Your task to perform on an android device: turn on notifications settings in the gmail app Image 0: 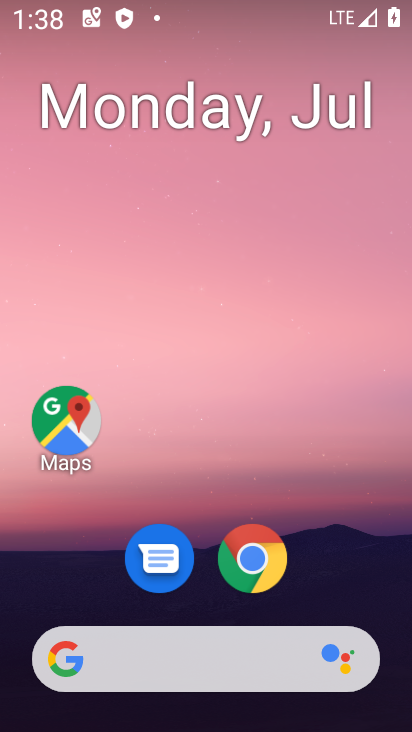
Step 0: drag from (351, 571) to (383, 54)
Your task to perform on an android device: turn on notifications settings in the gmail app Image 1: 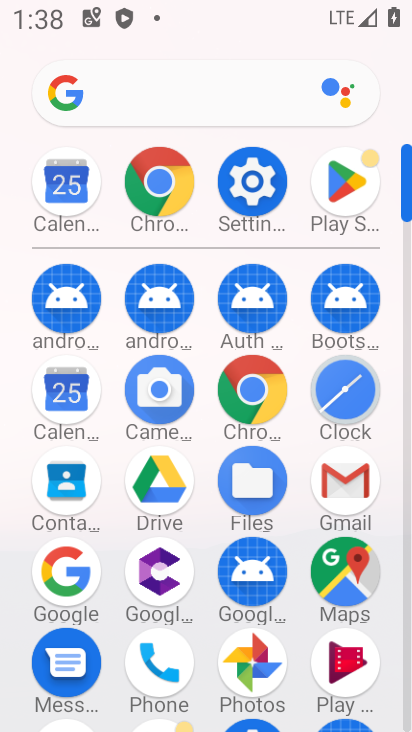
Step 1: click (356, 484)
Your task to perform on an android device: turn on notifications settings in the gmail app Image 2: 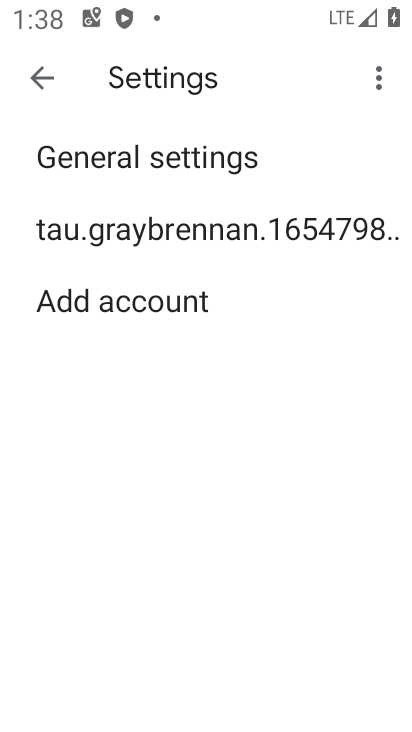
Step 2: click (244, 230)
Your task to perform on an android device: turn on notifications settings in the gmail app Image 3: 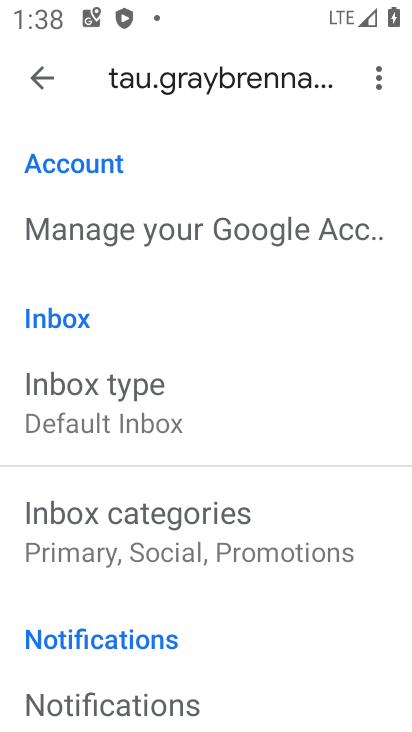
Step 3: drag from (344, 504) to (348, 346)
Your task to perform on an android device: turn on notifications settings in the gmail app Image 4: 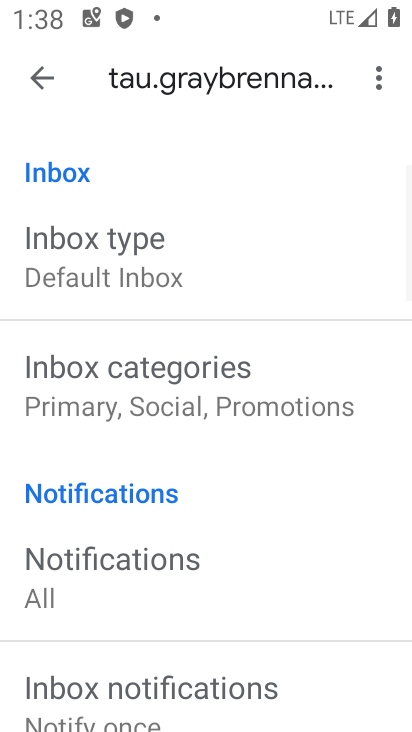
Step 4: drag from (337, 524) to (337, 419)
Your task to perform on an android device: turn on notifications settings in the gmail app Image 5: 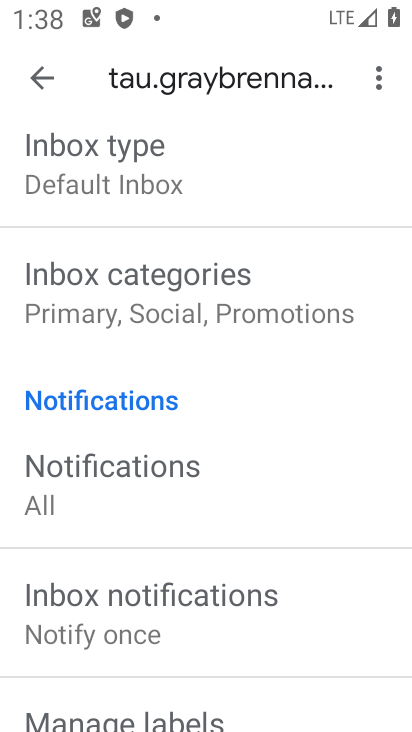
Step 5: drag from (304, 504) to (301, 262)
Your task to perform on an android device: turn on notifications settings in the gmail app Image 6: 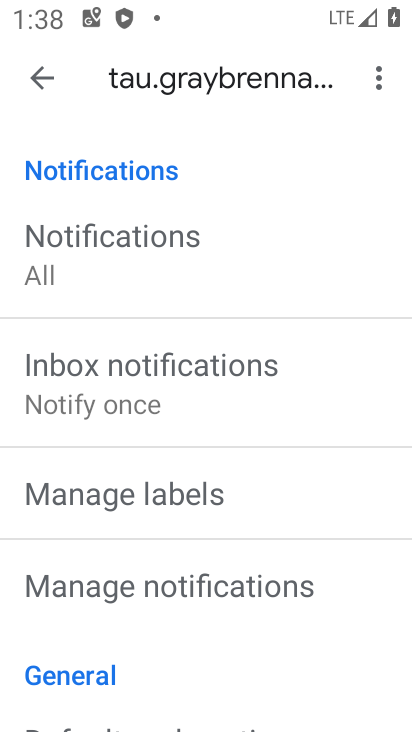
Step 6: drag from (312, 514) to (305, 392)
Your task to perform on an android device: turn on notifications settings in the gmail app Image 7: 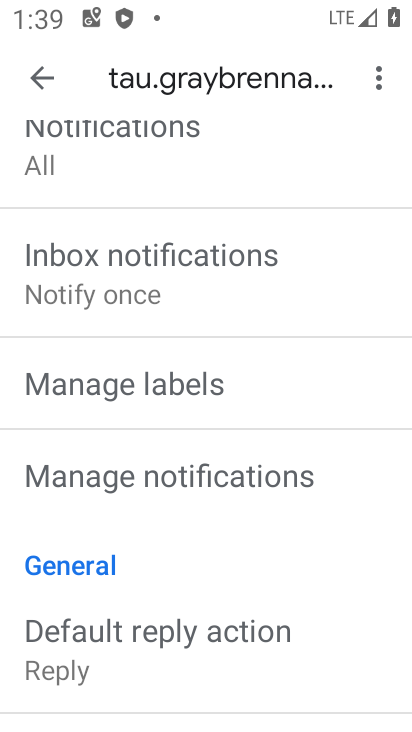
Step 7: drag from (292, 603) to (305, 445)
Your task to perform on an android device: turn on notifications settings in the gmail app Image 8: 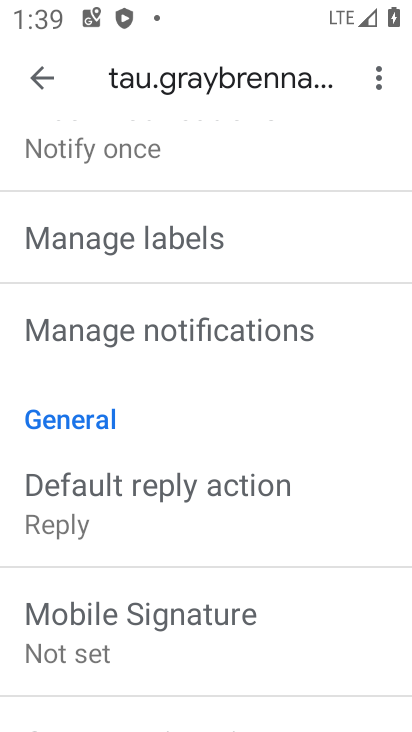
Step 8: drag from (318, 596) to (303, 409)
Your task to perform on an android device: turn on notifications settings in the gmail app Image 9: 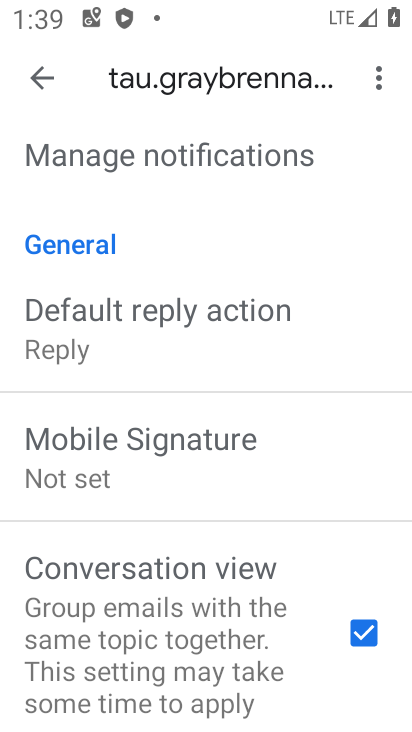
Step 9: drag from (331, 186) to (331, 342)
Your task to perform on an android device: turn on notifications settings in the gmail app Image 10: 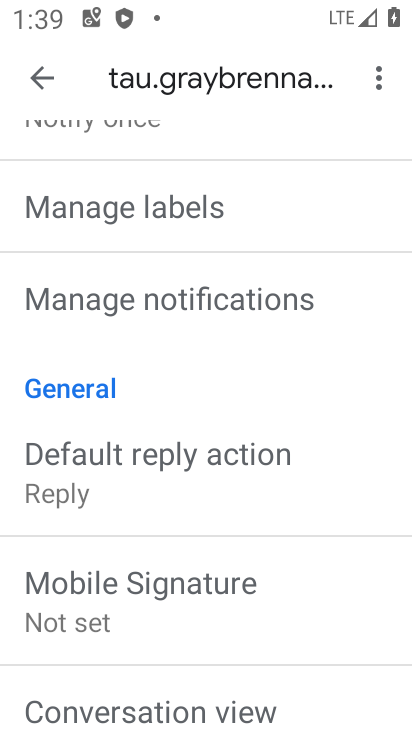
Step 10: click (323, 318)
Your task to perform on an android device: turn on notifications settings in the gmail app Image 11: 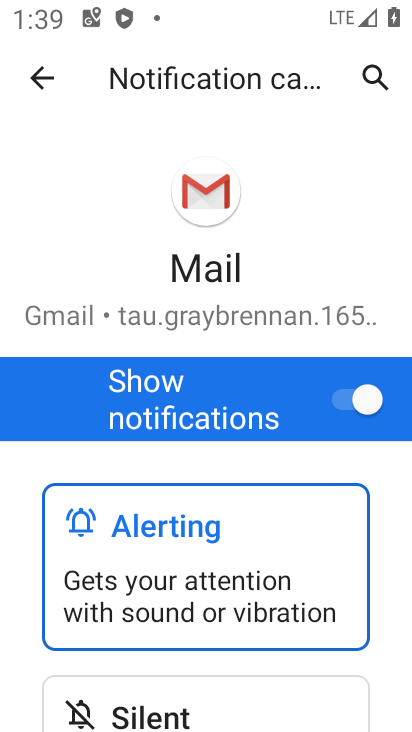
Step 11: task complete